Your task to perform on an android device: delete location history Image 0: 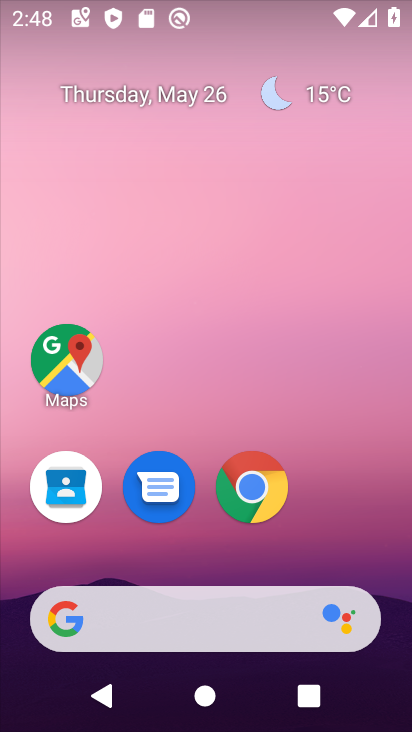
Step 0: click (88, 373)
Your task to perform on an android device: delete location history Image 1: 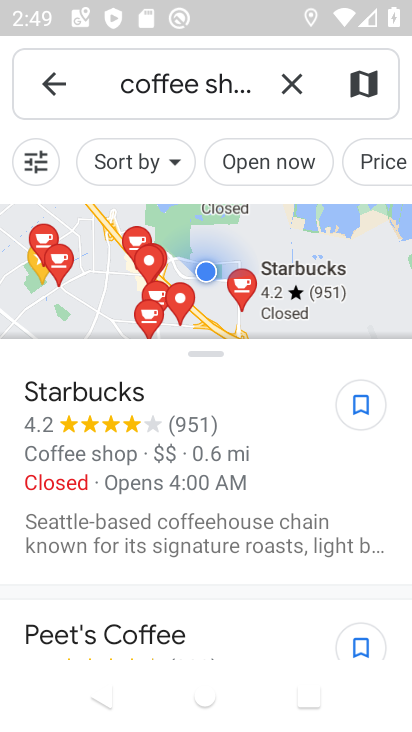
Step 1: click (45, 84)
Your task to perform on an android device: delete location history Image 2: 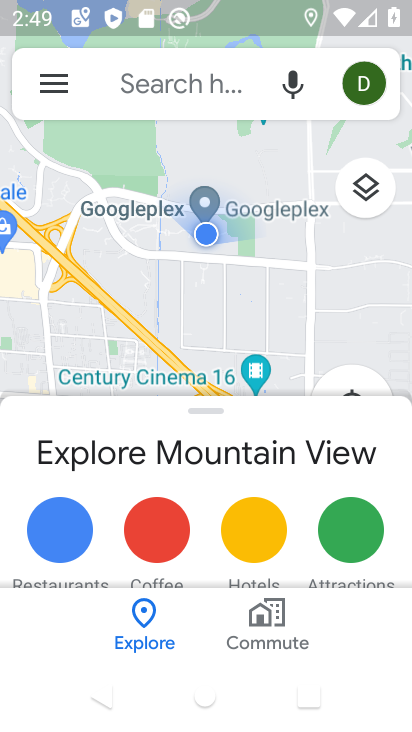
Step 2: click (46, 83)
Your task to perform on an android device: delete location history Image 3: 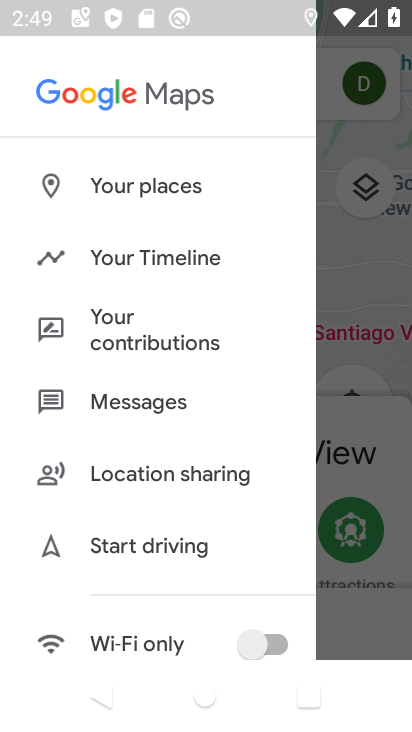
Step 3: click (133, 248)
Your task to perform on an android device: delete location history Image 4: 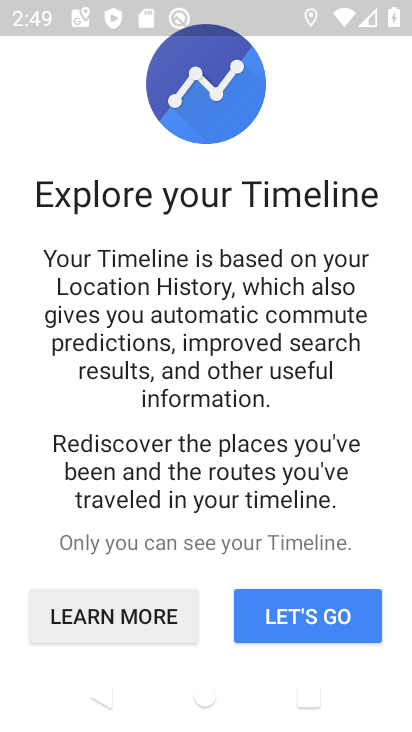
Step 4: click (284, 605)
Your task to perform on an android device: delete location history Image 5: 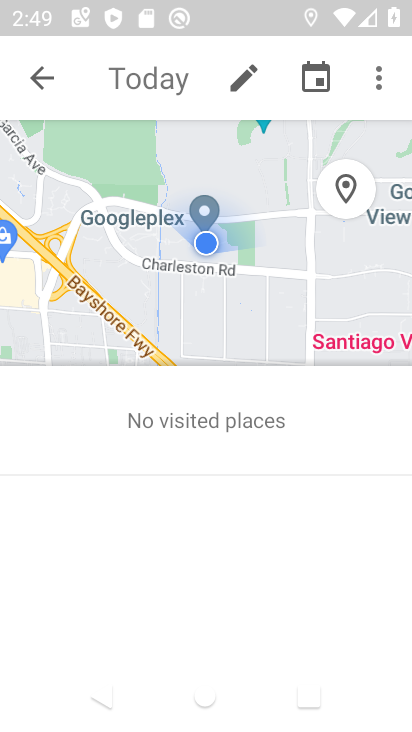
Step 5: click (373, 76)
Your task to perform on an android device: delete location history Image 6: 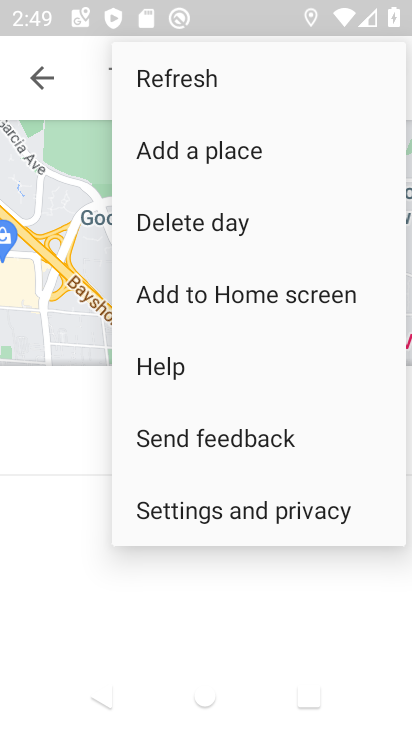
Step 6: click (255, 497)
Your task to perform on an android device: delete location history Image 7: 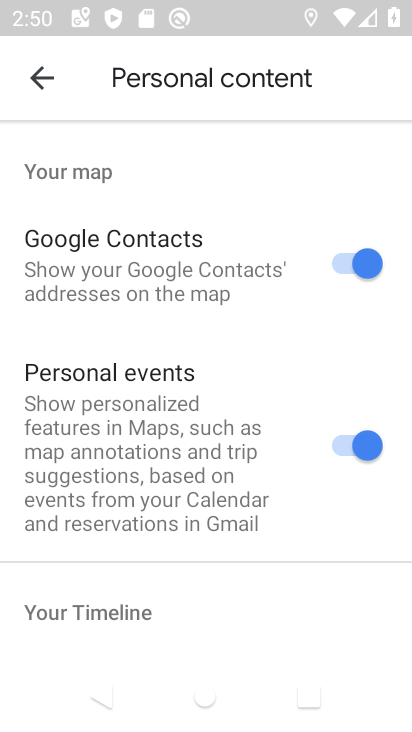
Step 7: drag from (195, 586) to (203, 186)
Your task to perform on an android device: delete location history Image 8: 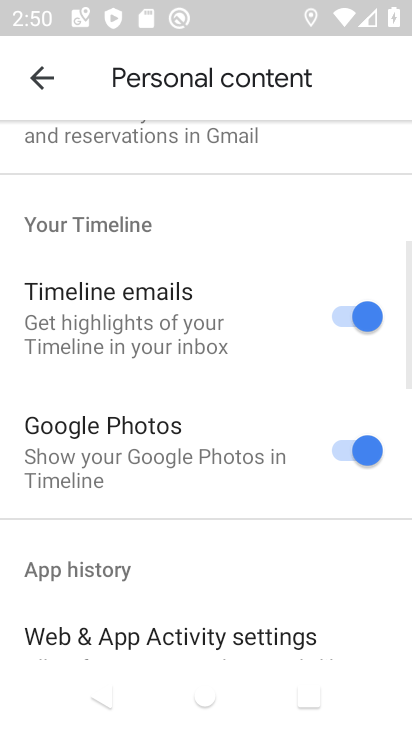
Step 8: drag from (129, 588) to (221, 212)
Your task to perform on an android device: delete location history Image 9: 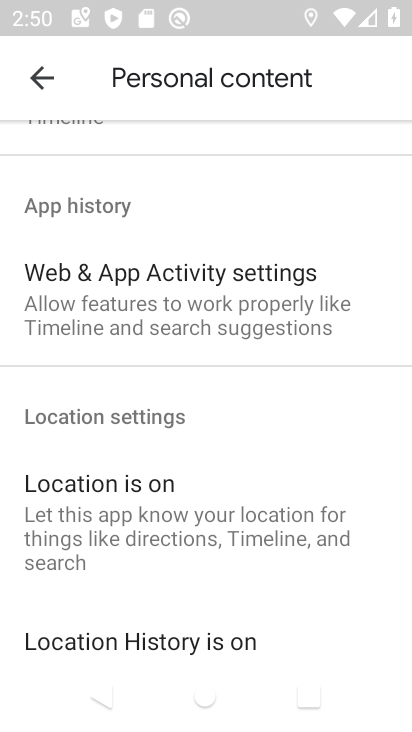
Step 9: drag from (189, 623) to (246, 248)
Your task to perform on an android device: delete location history Image 10: 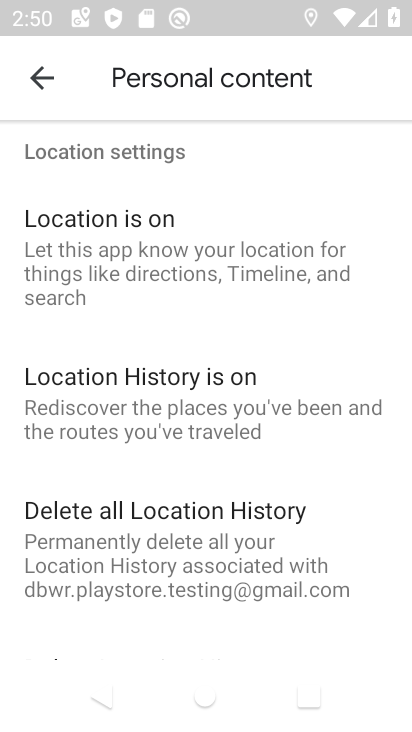
Step 10: click (233, 529)
Your task to perform on an android device: delete location history Image 11: 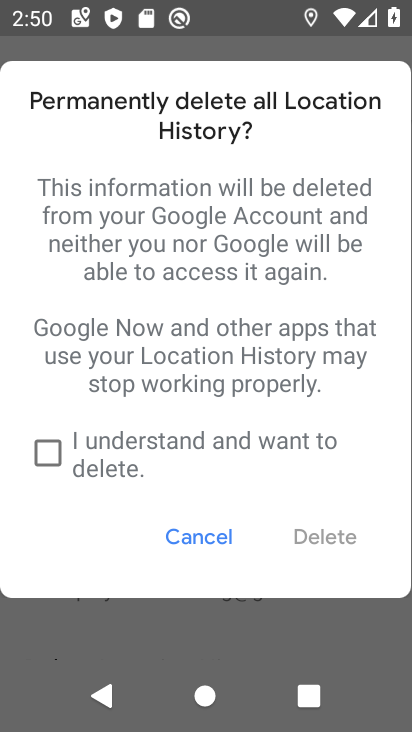
Step 11: click (108, 439)
Your task to perform on an android device: delete location history Image 12: 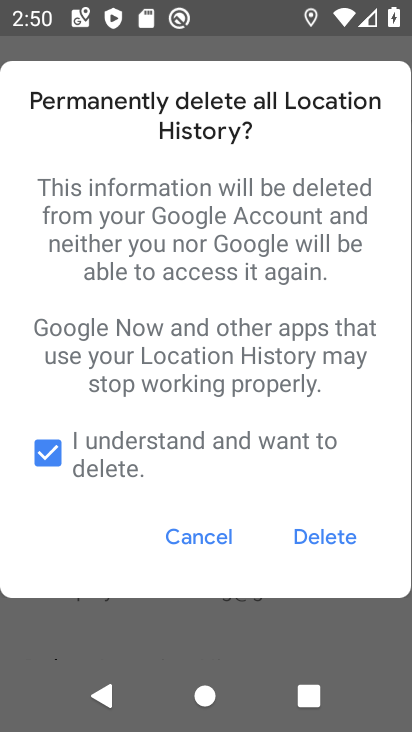
Step 12: click (313, 531)
Your task to perform on an android device: delete location history Image 13: 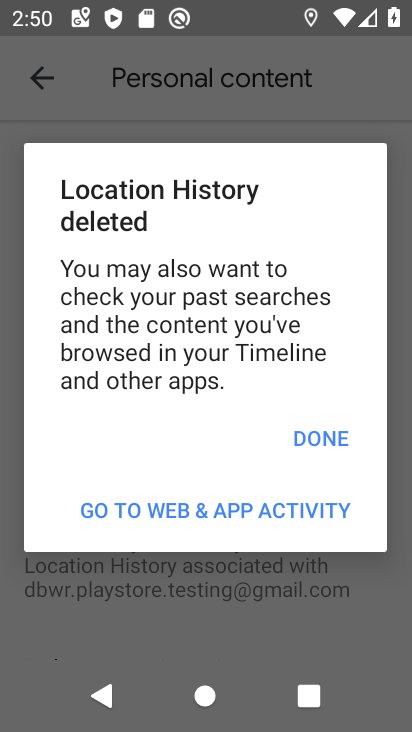
Step 13: task complete